Your task to perform on an android device: empty trash in the gmail app Image 0: 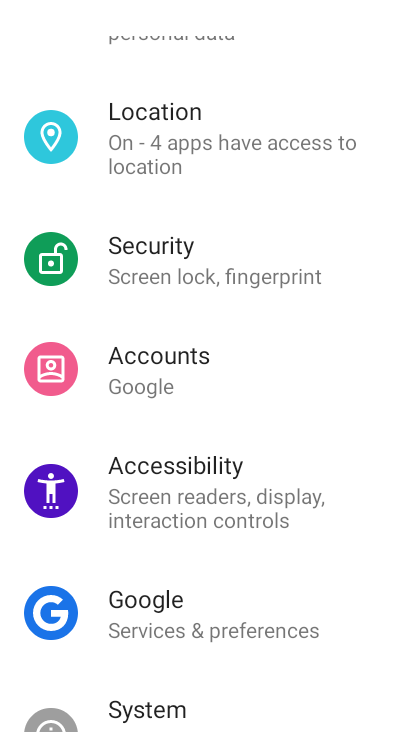
Step 0: press back button
Your task to perform on an android device: empty trash in the gmail app Image 1: 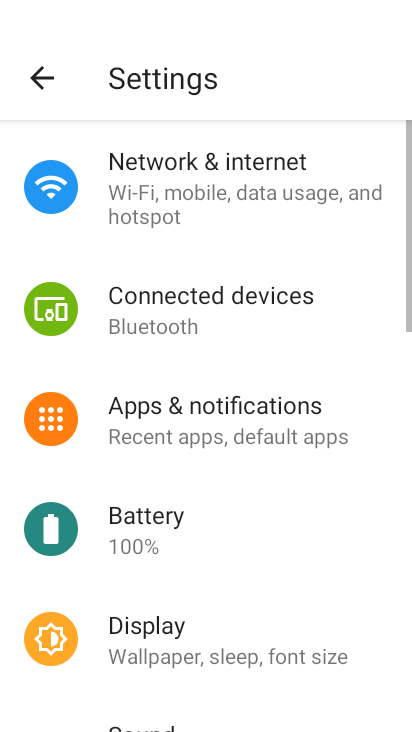
Step 1: press back button
Your task to perform on an android device: empty trash in the gmail app Image 2: 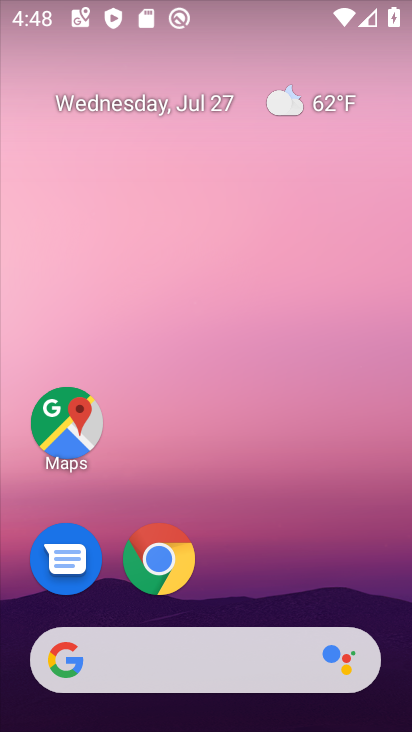
Step 2: drag from (221, 599) to (264, 8)
Your task to perform on an android device: empty trash in the gmail app Image 3: 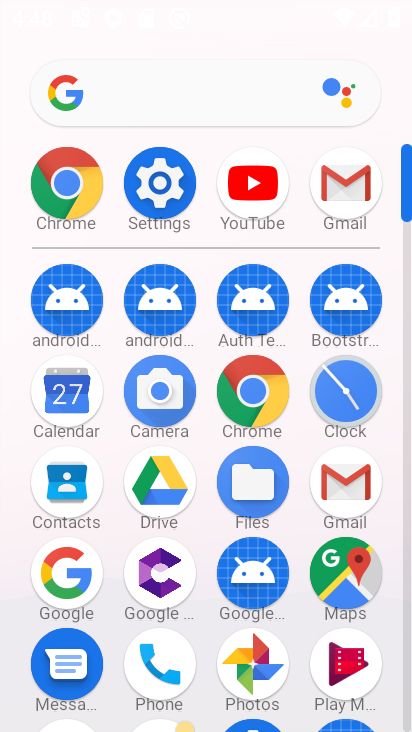
Step 3: click (334, 184)
Your task to perform on an android device: empty trash in the gmail app Image 4: 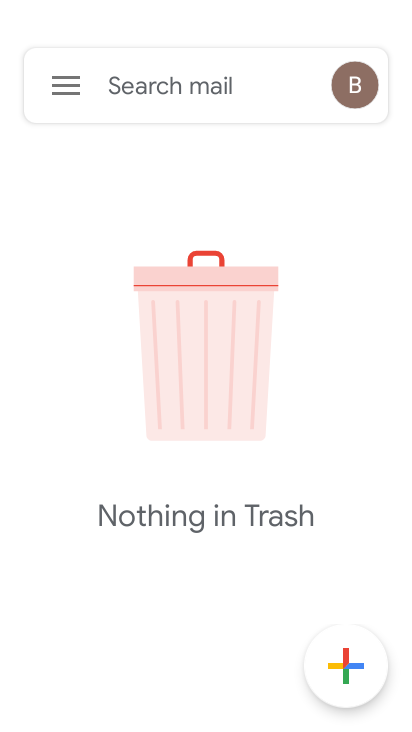
Step 4: click (55, 80)
Your task to perform on an android device: empty trash in the gmail app Image 5: 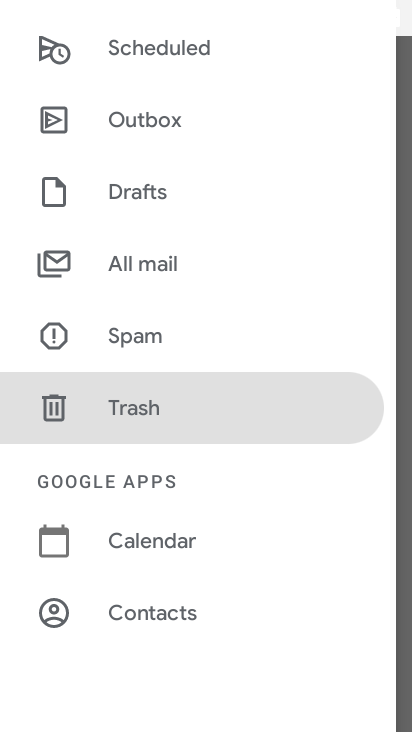
Step 5: click (149, 405)
Your task to perform on an android device: empty trash in the gmail app Image 6: 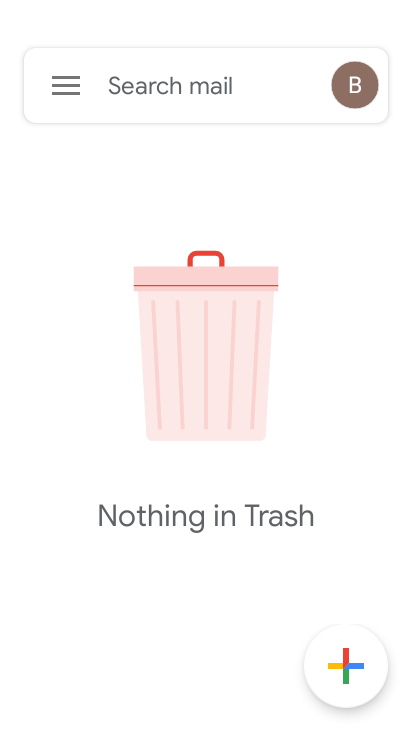
Step 6: click (58, 88)
Your task to perform on an android device: empty trash in the gmail app Image 7: 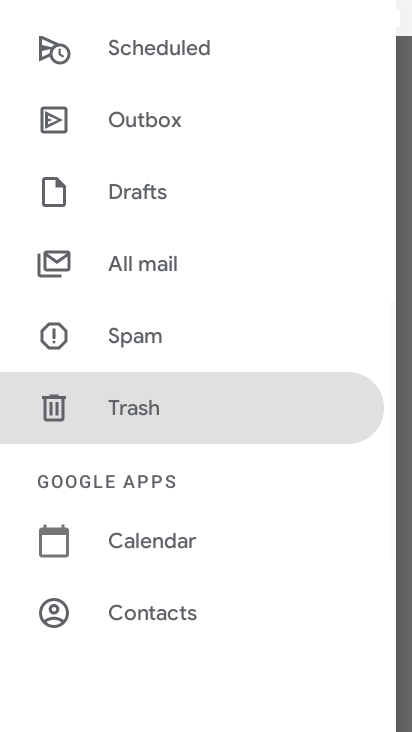
Step 7: click (160, 402)
Your task to perform on an android device: empty trash in the gmail app Image 8: 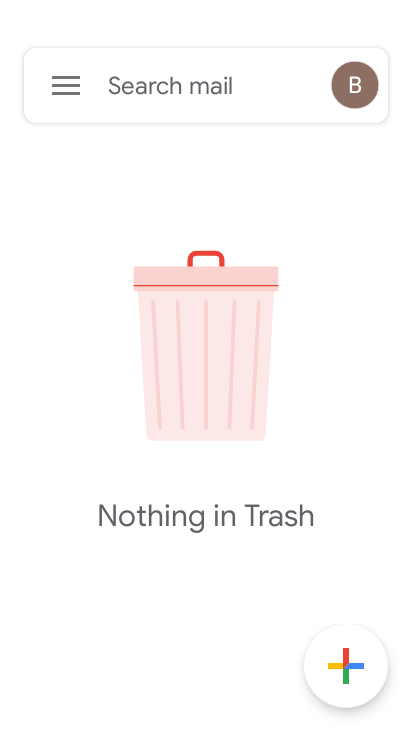
Step 8: task complete